Your task to perform on an android device: toggle location history Image 0: 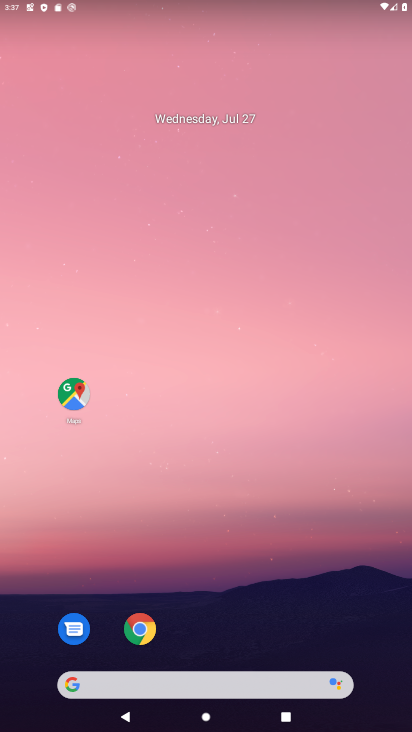
Step 0: drag from (344, 596) to (304, 108)
Your task to perform on an android device: toggle location history Image 1: 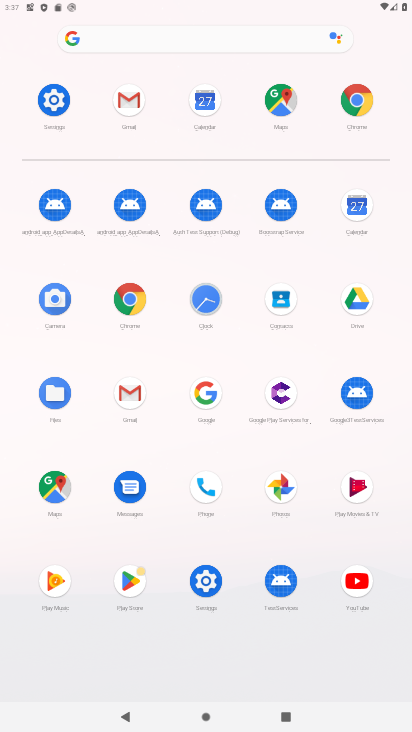
Step 1: click (52, 105)
Your task to perform on an android device: toggle location history Image 2: 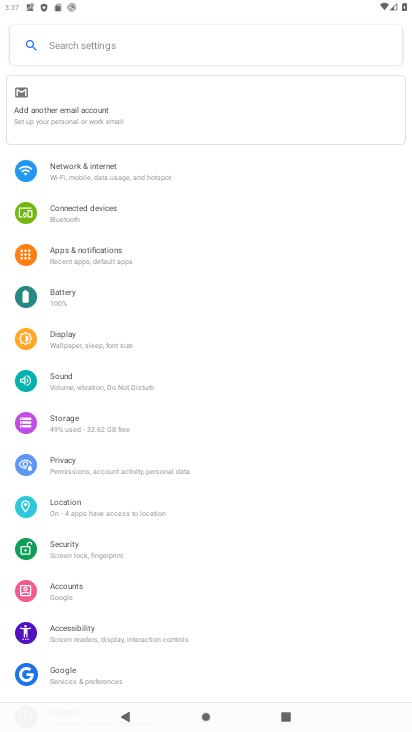
Step 2: click (97, 514)
Your task to perform on an android device: toggle location history Image 3: 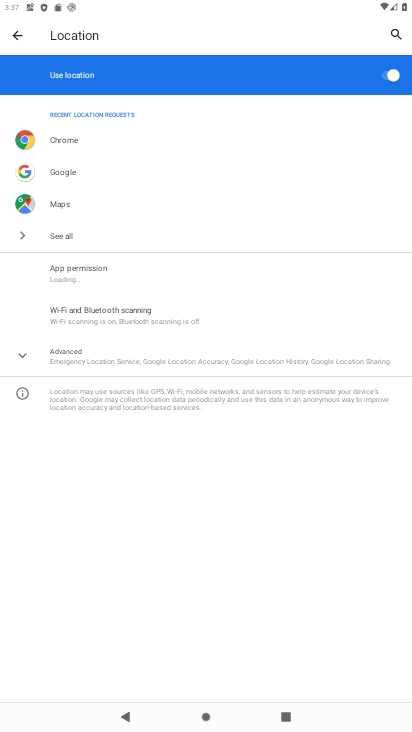
Step 3: click (81, 348)
Your task to perform on an android device: toggle location history Image 4: 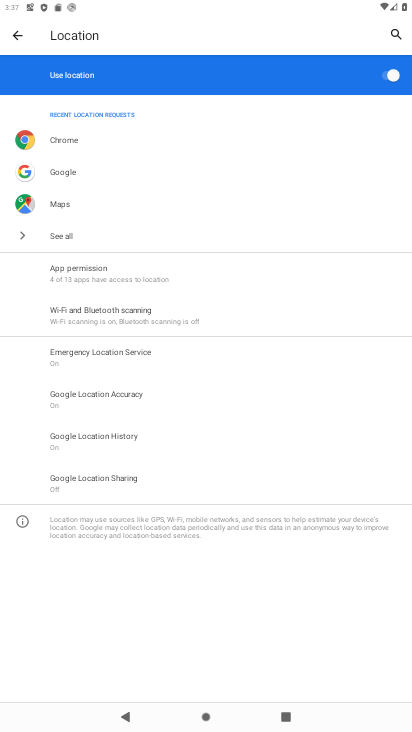
Step 4: click (114, 434)
Your task to perform on an android device: toggle location history Image 5: 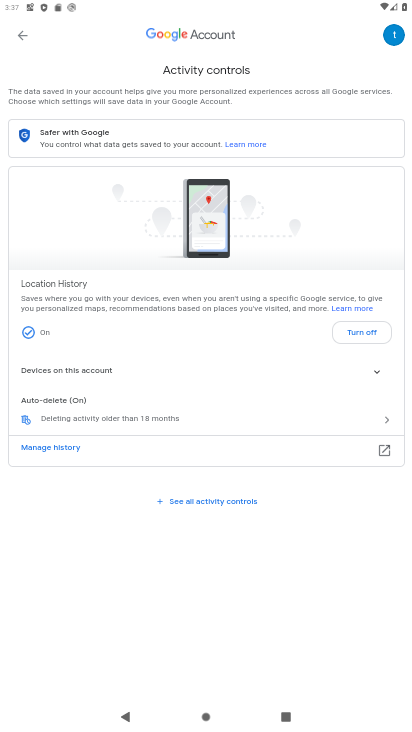
Step 5: click (363, 329)
Your task to perform on an android device: toggle location history Image 6: 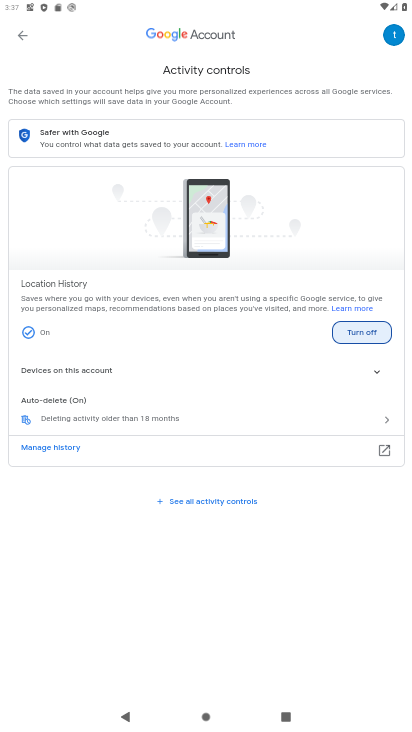
Step 6: click (352, 326)
Your task to perform on an android device: toggle location history Image 7: 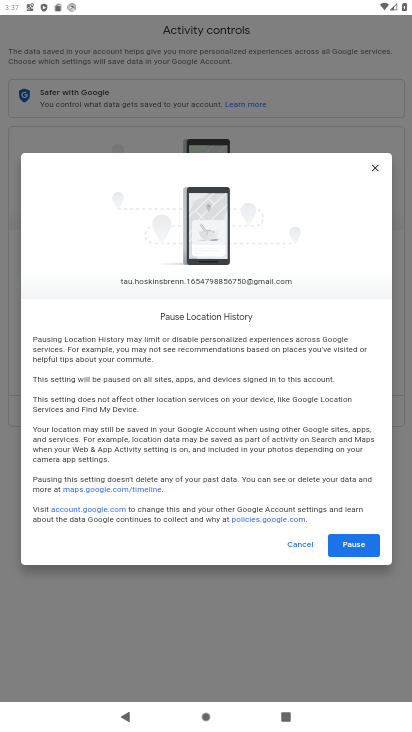
Step 7: click (346, 537)
Your task to perform on an android device: toggle location history Image 8: 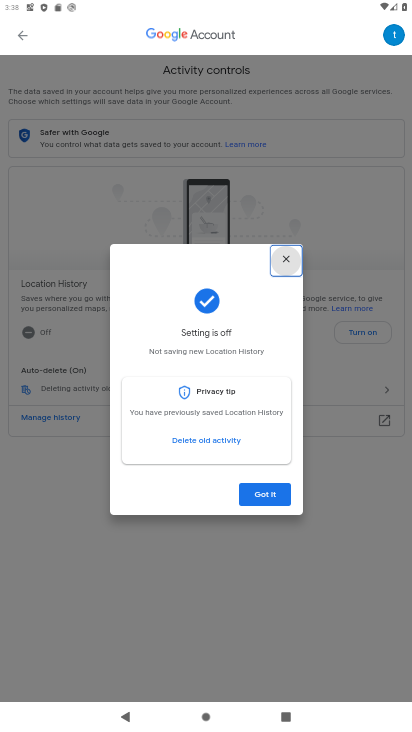
Step 8: task complete